Your task to perform on an android device: star an email in the gmail app Image 0: 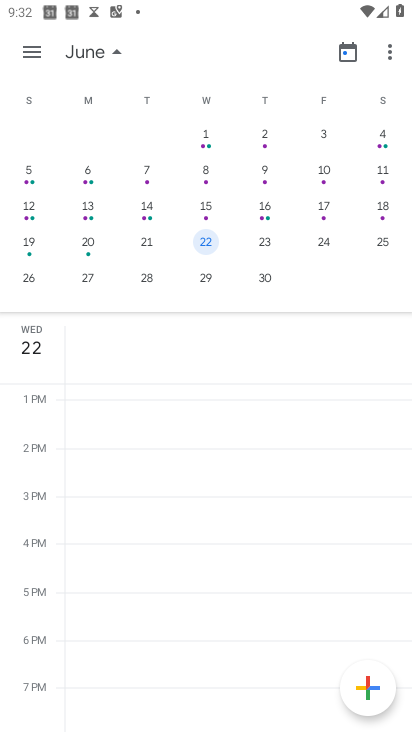
Step 0: press home button
Your task to perform on an android device: star an email in the gmail app Image 1: 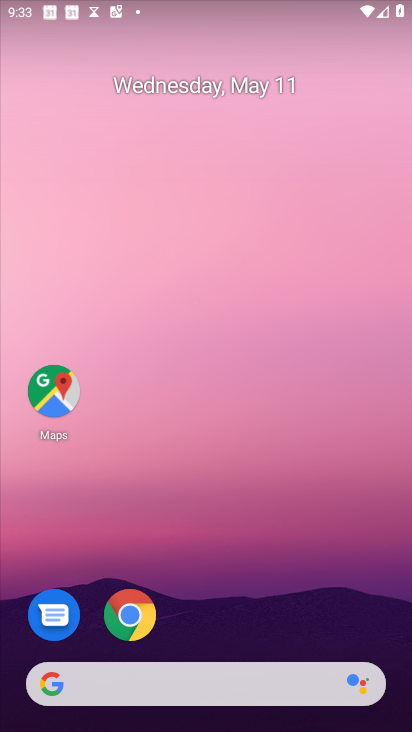
Step 1: drag from (31, 524) to (212, 112)
Your task to perform on an android device: star an email in the gmail app Image 2: 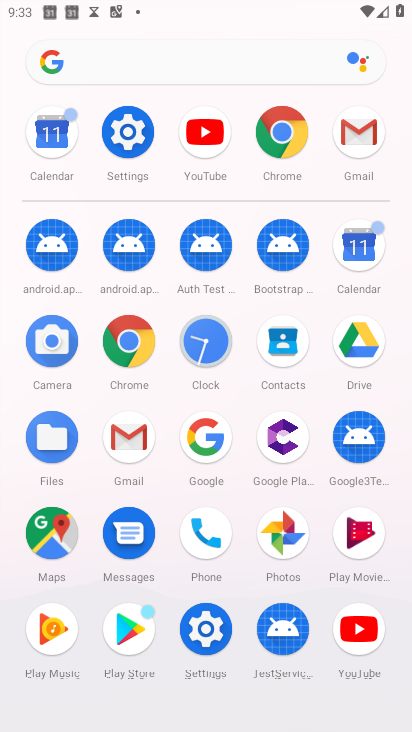
Step 2: click (342, 132)
Your task to perform on an android device: star an email in the gmail app Image 3: 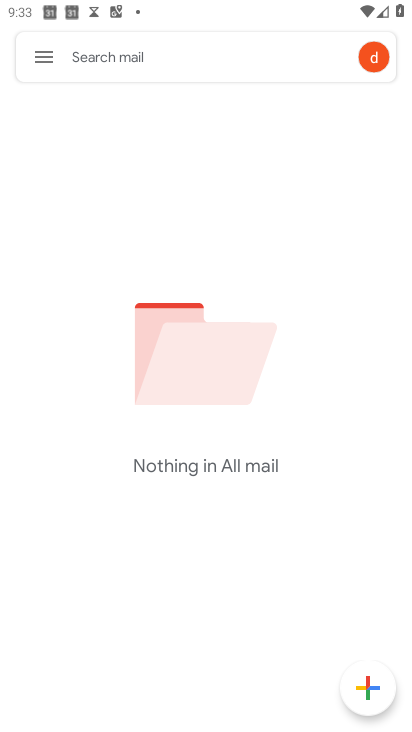
Step 3: click (32, 59)
Your task to perform on an android device: star an email in the gmail app Image 4: 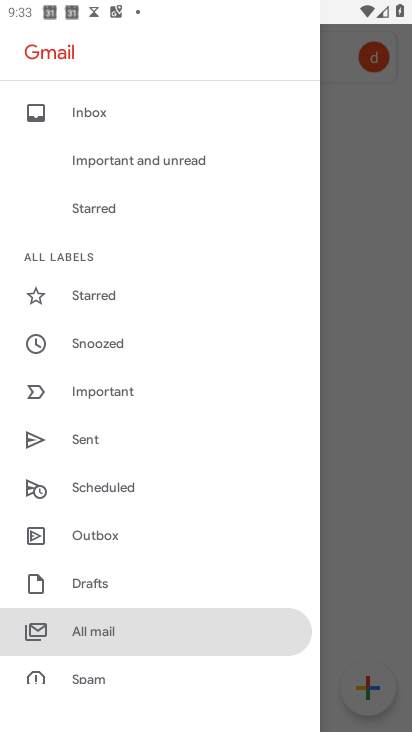
Step 4: click (117, 629)
Your task to perform on an android device: star an email in the gmail app Image 5: 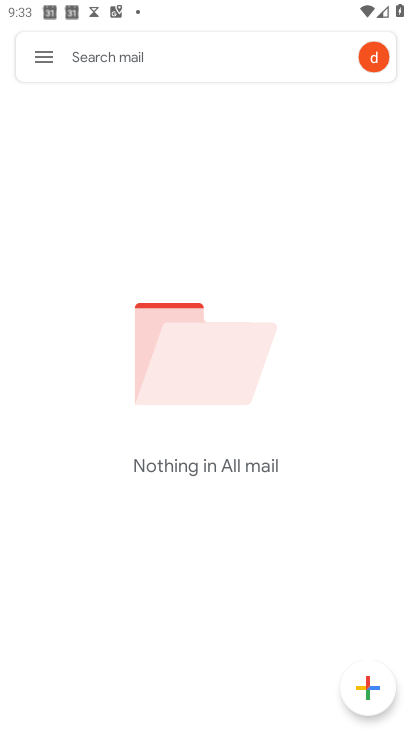
Step 5: task complete